Your task to perform on an android device: open app "eBay: The shopping marketplace" (install if not already installed) and enter user name: "articulated@icloud.com" and password: "excluding" Image 0: 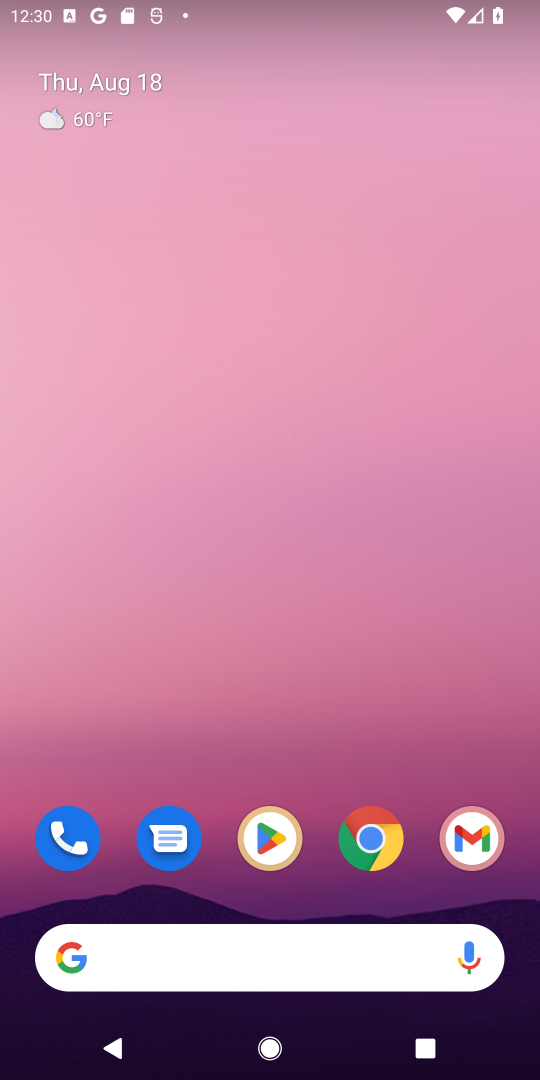
Step 0: click (261, 854)
Your task to perform on an android device: open app "eBay: The shopping marketplace" (install if not already installed) and enter user name: "articulated@icloud.com" and password: "excluding" Image 1: 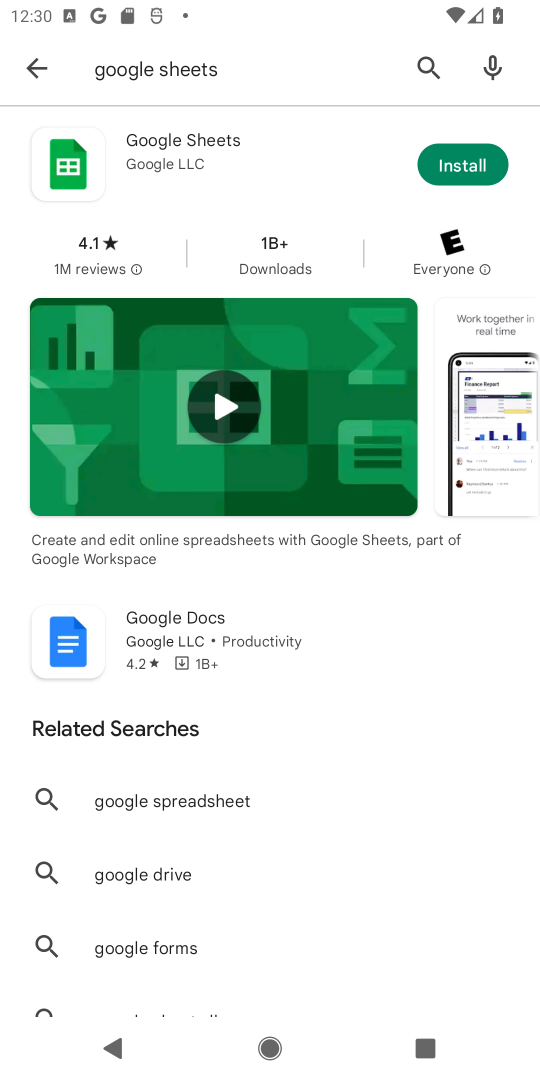
Step 1: click (421, 61)
Your task to perform on an android device: open app "eBay: The shopping marketplace" (install if not already installed) and enter user name: "articulated@icloud.com" and password: "excluding" Image 2: 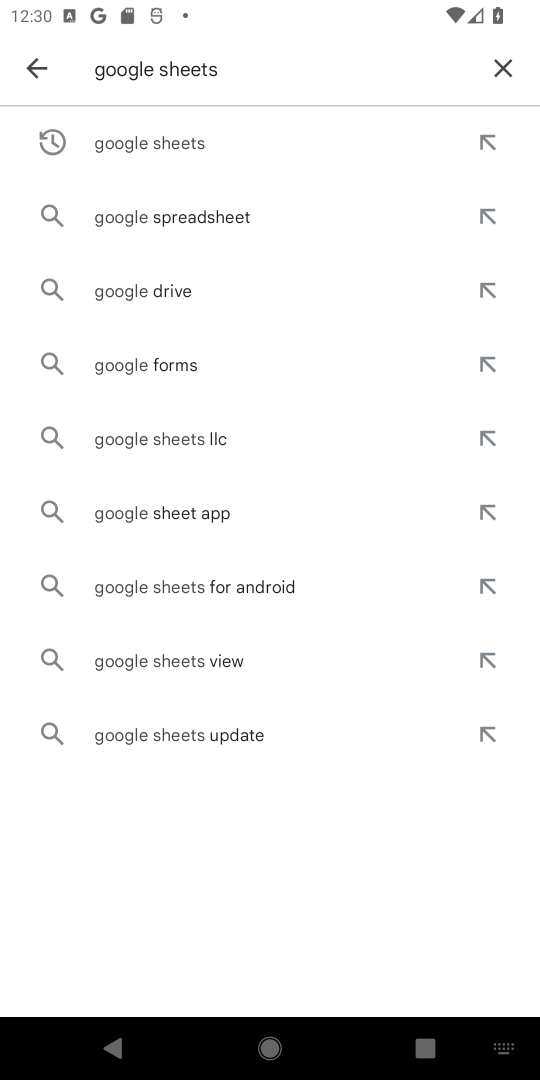
Step 2: click (499, 69)
Your task to perform on an android device: open app "eBay: The shopping marketplace" (install if not already installed) and enter user name: "articulated@icloud.com" and password: "excluding" Image 3: 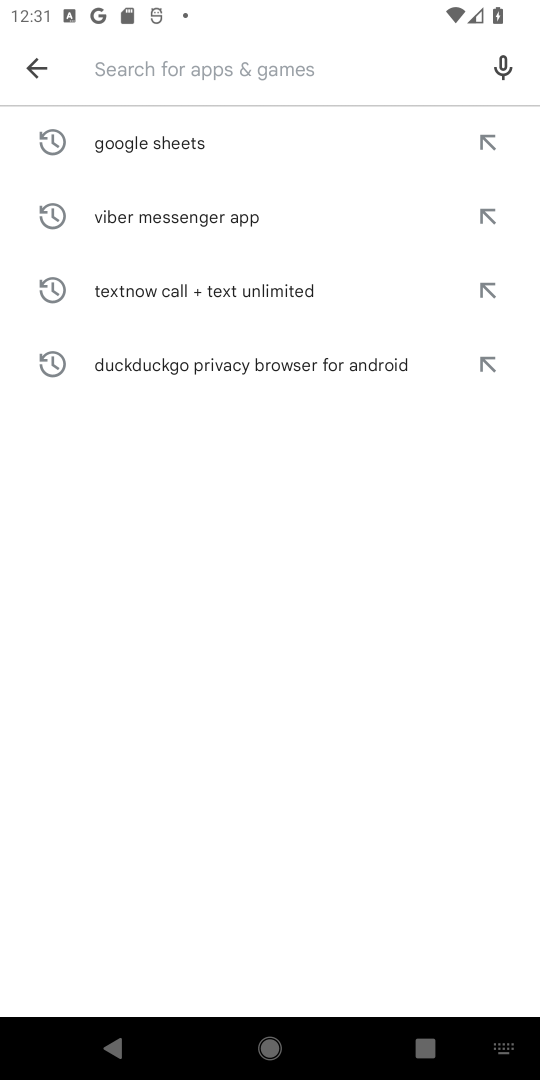
Step 3: type "eBay: The shopping marketplace"
Your task to perform on an android device: open app "eBay: The shopping marketplace" (install if not already installed) and enter user name: "articulated@icloud.com" and password: "excluding" Image 4: 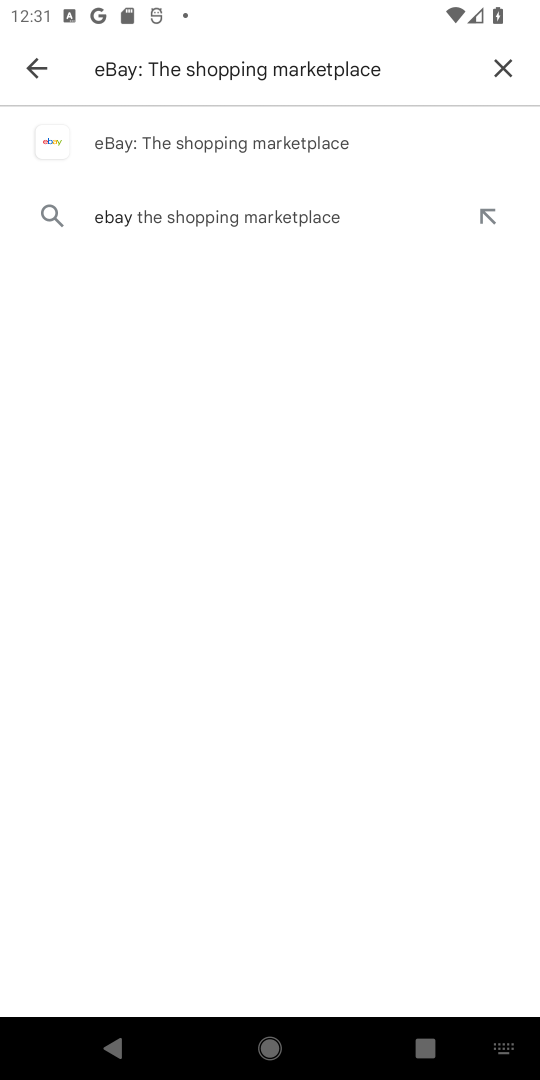
Step 4: click (257, 146)
Your task to perform on an android device: open app "eBay: The shopping marketplace" (install if not already installed) and enter user name: "articulated@icloud.com" and password: "excluding" Image 5: 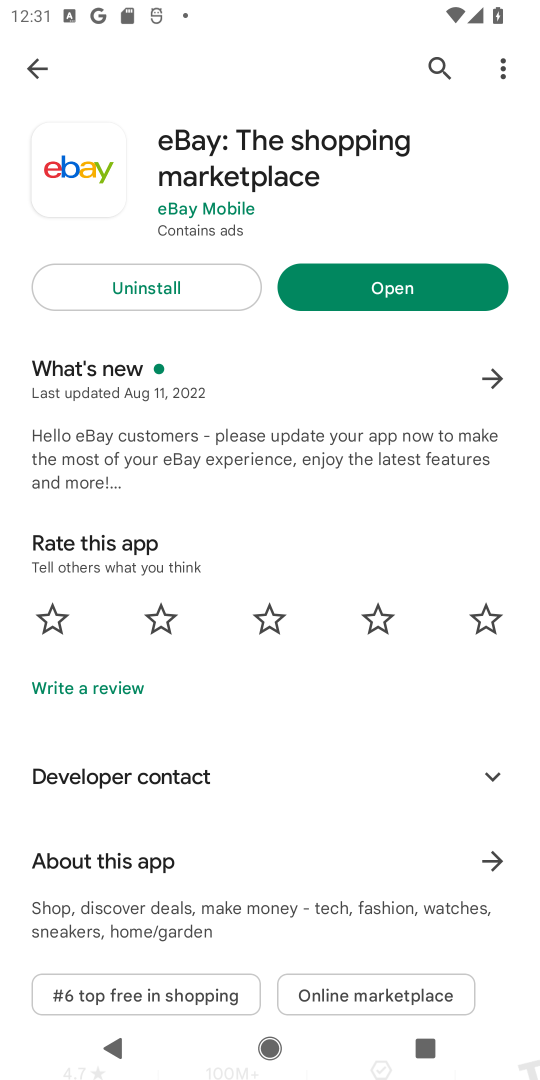
Step 5: click (368, 302)
Your task to perform on an android device: open app "eBay: The shopping marketplace" (install if not already installed) and enter user name: "articulated@icloud.com" and password: "excluding" Image 6: 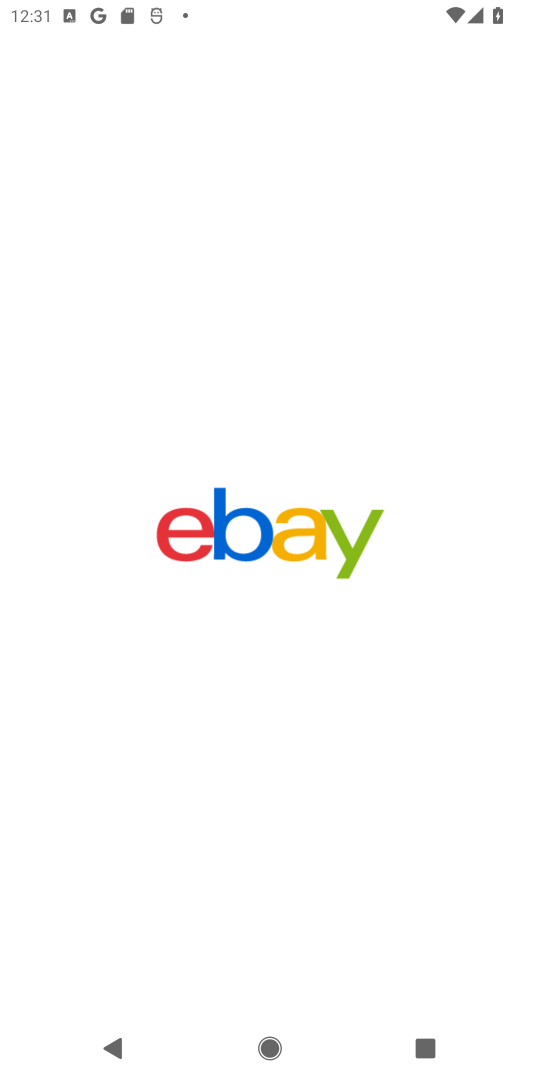
Step 6: task complete